Your task to perform on an android device: Is it going to rain today? Image 0: 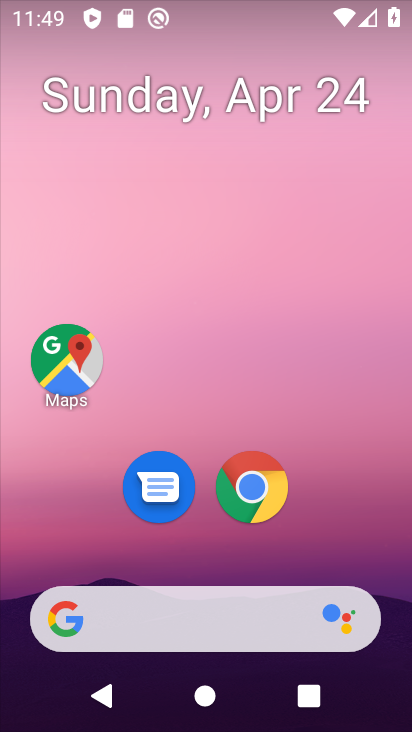
Step 0: click (138, 601)
Your task to perform on an android device: Is it going to rain today? Image 1: 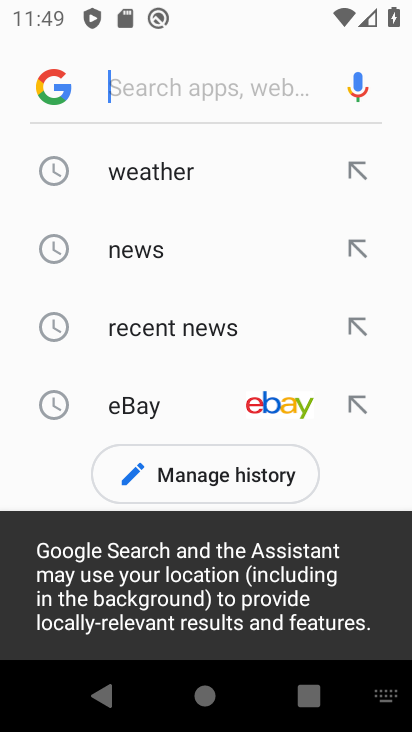
Step 1: click (139, 187)
Your task to perform on an android device: Is it going to rain today? Image 2: 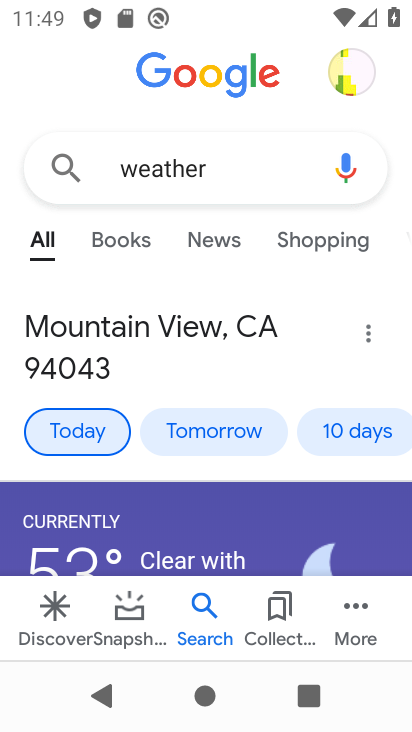
Step 2: task complete